Your task to perform on an android device: Open sound settings Image 0: 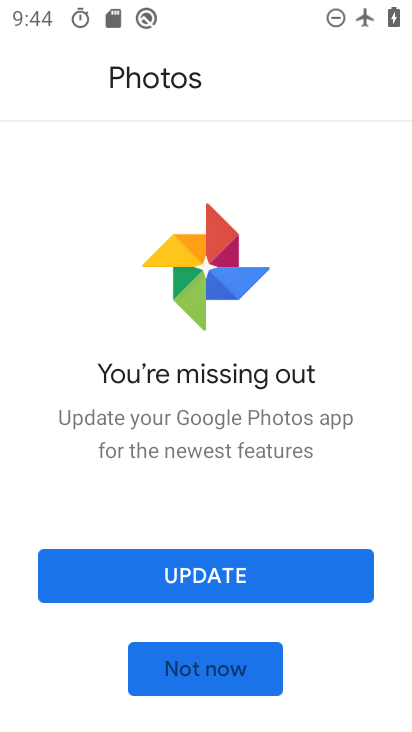
Step 0: press home button
Your task to perform on an android device: Open sound settings Image 1: 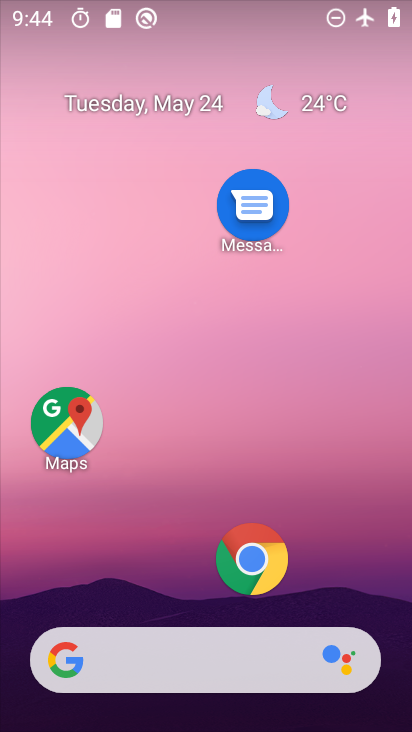
Step 1: drag from (178, 593) to (181, 128)
Your task to perform on an android device: Open sound settings Image 2: 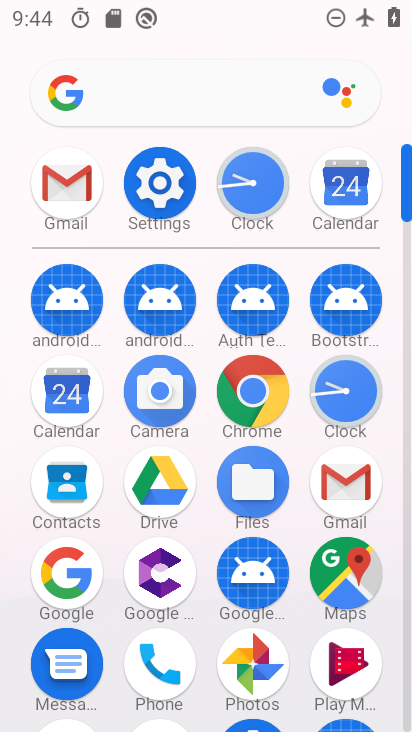
Step 2: click (178, 189)
Your task to perform on an android device: Open sound settings Image 3: 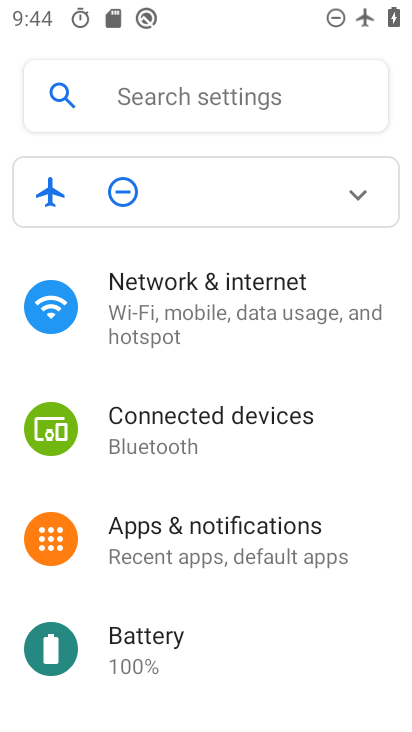
Step 3: drag from (214, 635) to (219, 367)
Your task to perform on an android device: Open sound settings Image 4: 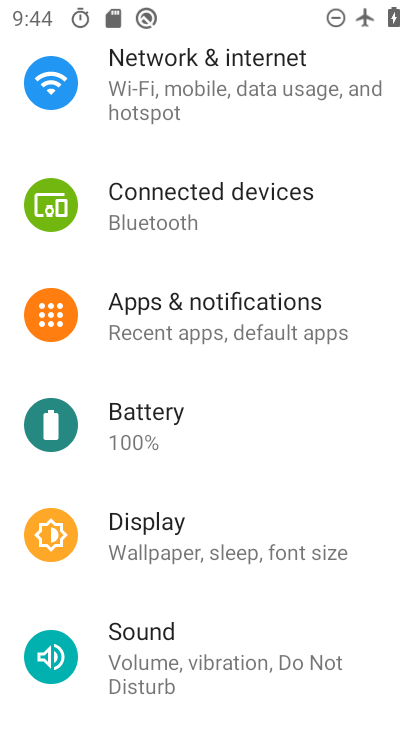
Step 4: click (222, 614)
Your task to perform on an android device: Open sound settings Image 5: 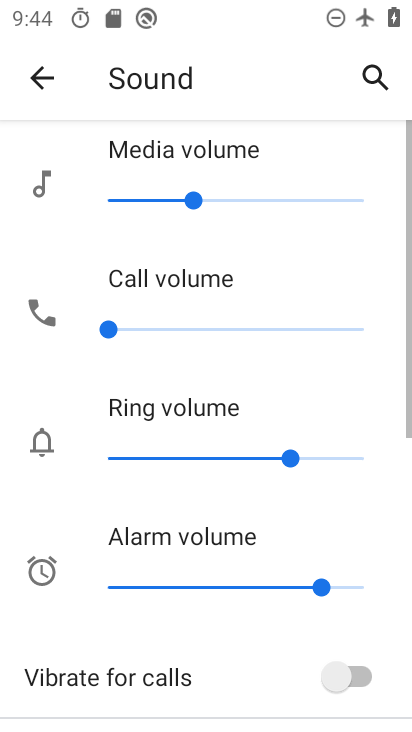
Step 5: task complete